Your task to perform on an android device: Open wifi settings Image 0: 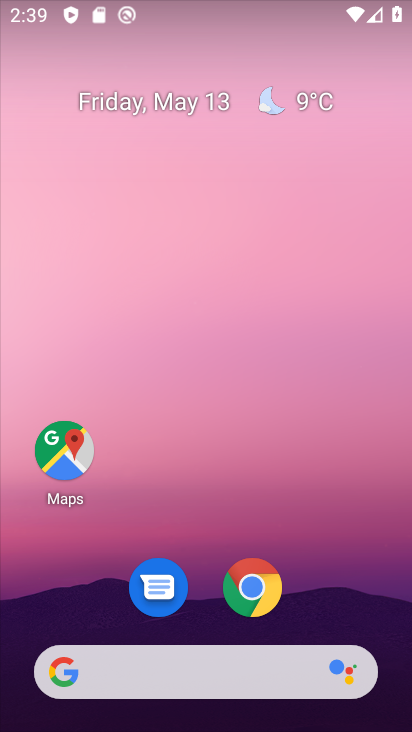
Step 0: drag from (321, 563) to (315, 227)
Your task to perform on an android device: Open wifi settings Image 1: 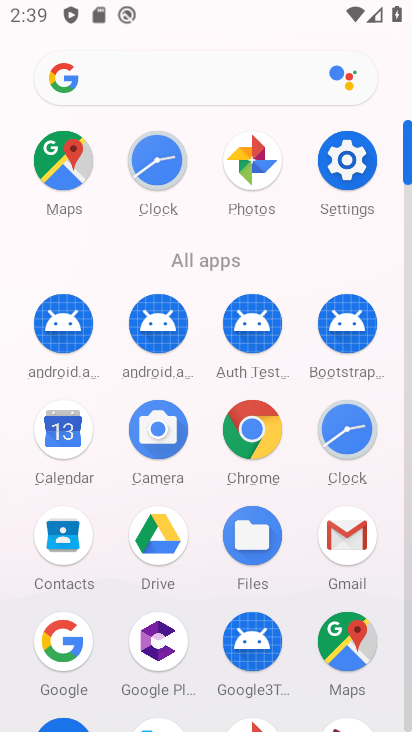
Step 1: click (346, 180)
Your task to perform on an android device: Open wifi settings Image 2: 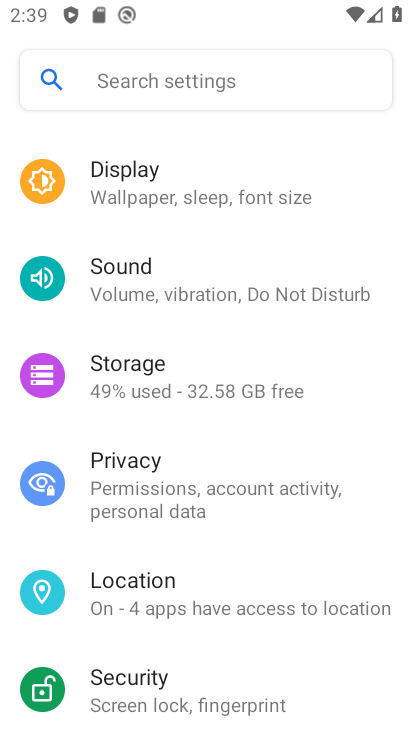
Step 2: drag from (207, 165) to (255, 647)
Your task to perform on an android device: Open wifi settings Image 3: 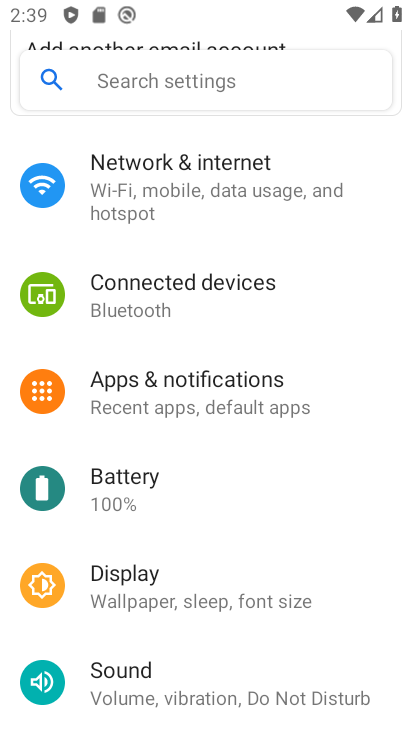
Step 3: click (180, 193)
Your task to perform on an android device: Open wifi settings Image 4: 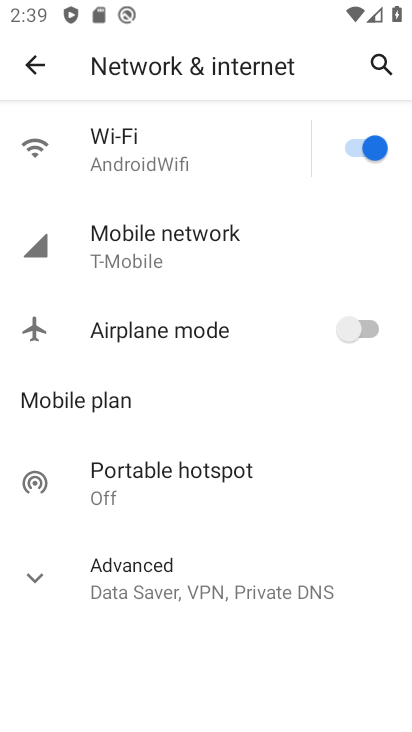
Step 4: click (172, 167)
Your task to perform on an android device: Open wifi settings Image 5: 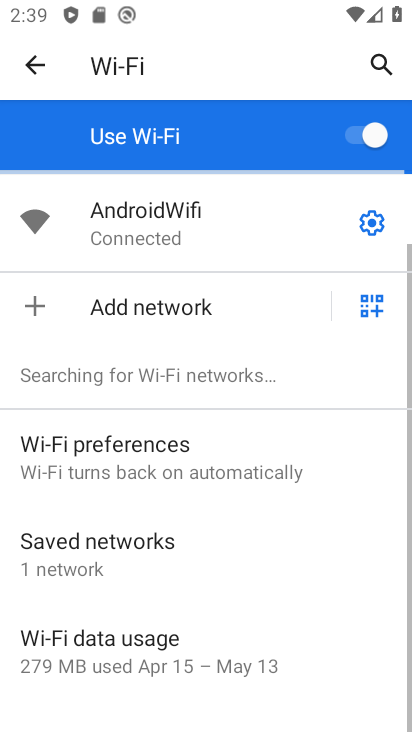
Step 5: task complete